Your task to perform on an android device: Open display settings Image 0: 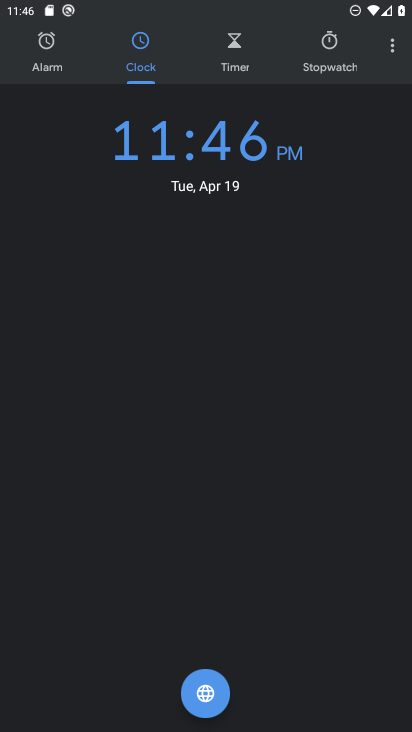
Step 0: press home button
Your task to perform on an android device: Open display settings Image 1: 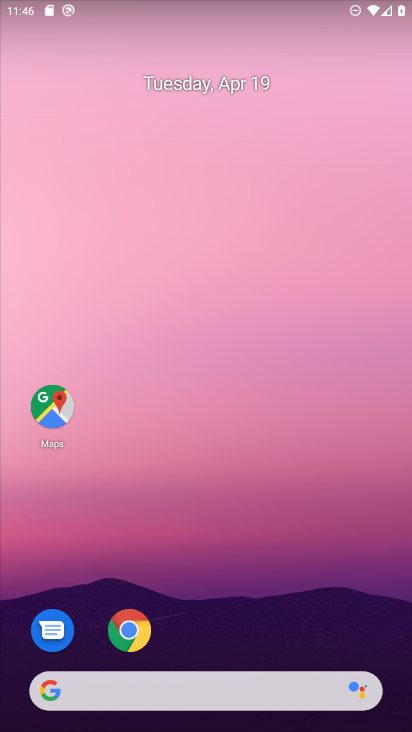
Step 1: drag from (190, 634) to (193, 223)
Your task to perform on an android device: Open display settings Image 2: 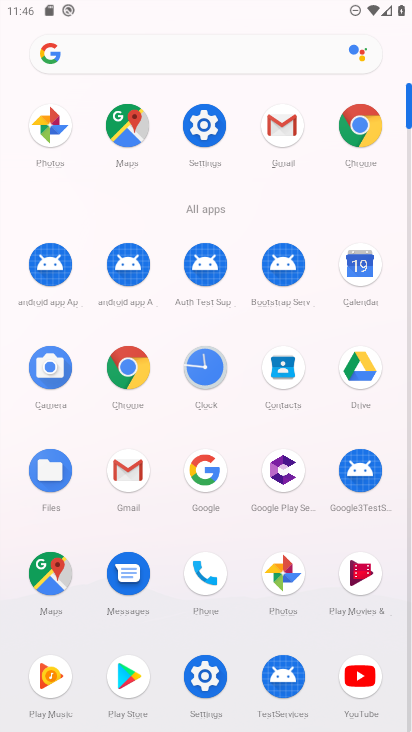
Step 2: click (197, 122)
Your task to perform on an android device: Open display settings Image 3: 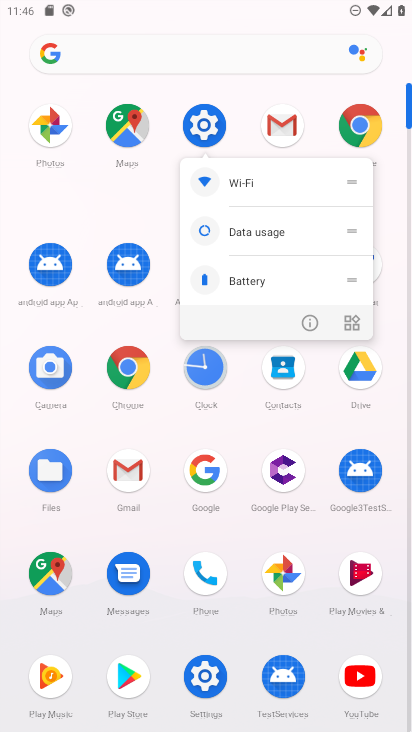
Step 3: click (197, 122)
Your task to perform on an android device: Open display settings Image 4: 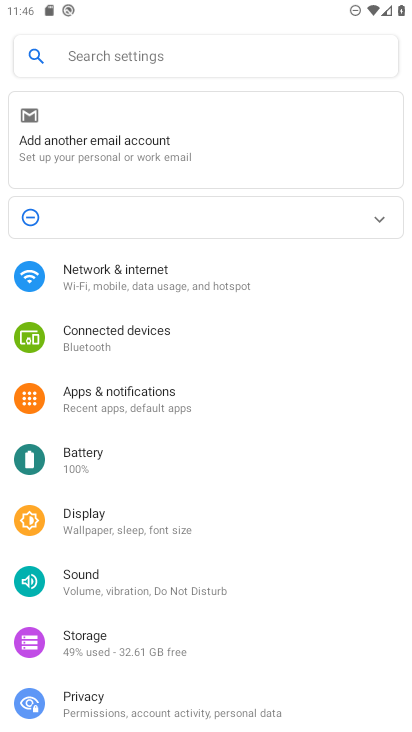
Step 4: drag from (123, 664) to (116, 385)
Your task to perform on an android device: Open display settings Image 5: 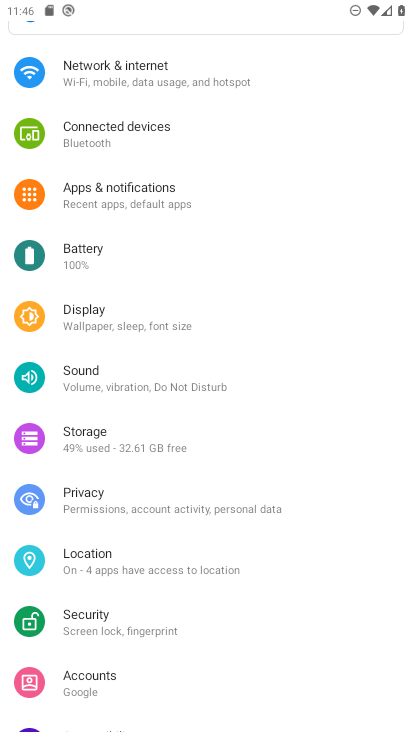
Step 5: click (83, 318)
Your task to perform on an android device: Open display settings Image 6: 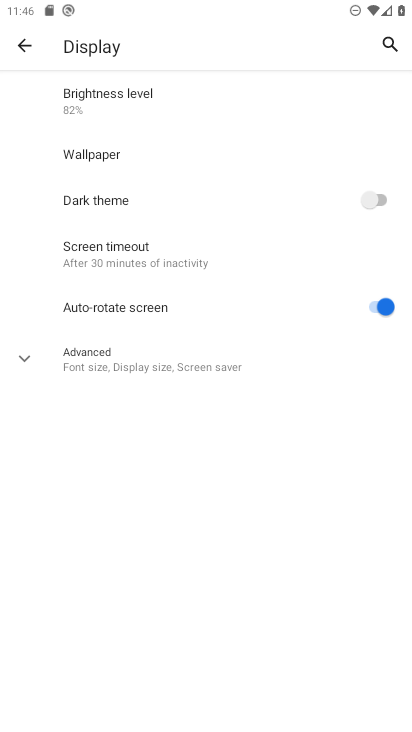
Step 6: click (88, 350)
Your task to perform on an android device: Open display settings Image 7: 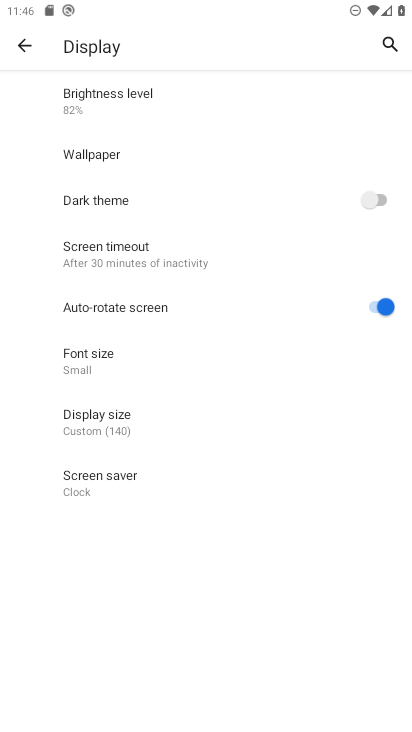
Step 7: task complete